Your task to perform on an android device: remove spam from my inbox in the gmail app Image 0: 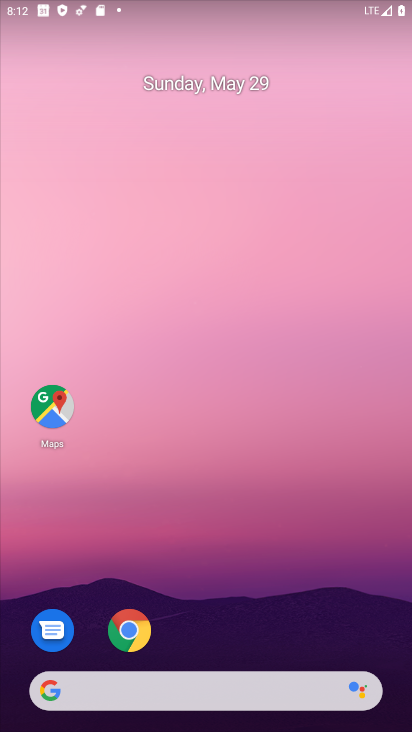
Step 0: drag from (202, 660) to (187, 16)
Your task to perform on an android device: remove spam from my inbox in the gmail app Image 1: 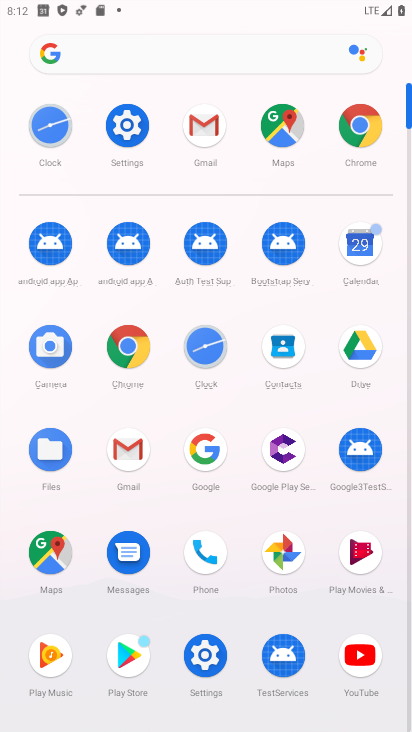
Step 1: click (136, 447)
Your task to perform on an android device: remove spam from my inbox in the gmail app Image 2: 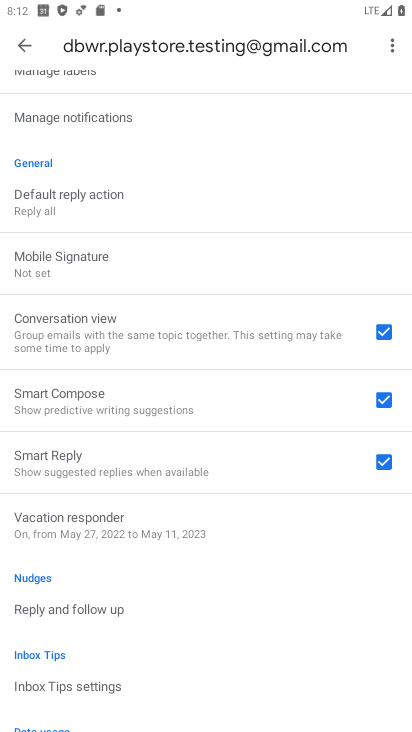
Step 2: click (38, 36)
Your task to perform on an android device: remove spam from my inbox in the gmail app Image 3: 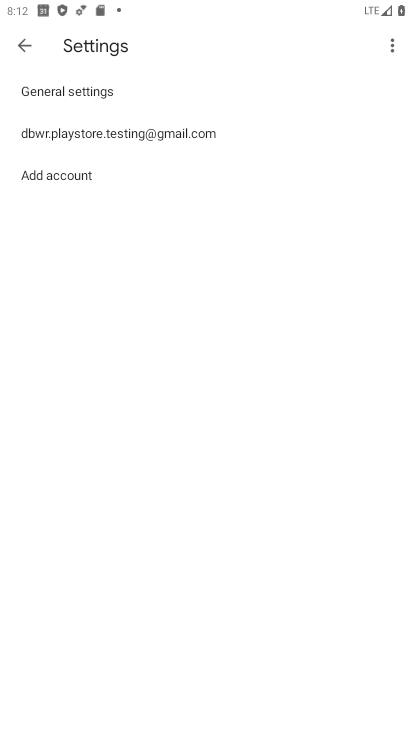
Step 3: click (38, 36)
Your task to perform on an android device: remove spam from my inbox in the gmail app Image 4: 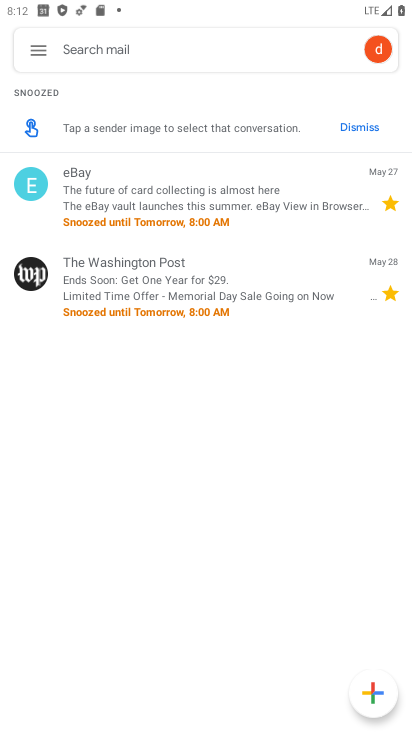
Step 4: click (38, 36)
Your task to perform on an android device: remove spam from my inbox in the gmail app Image 5: 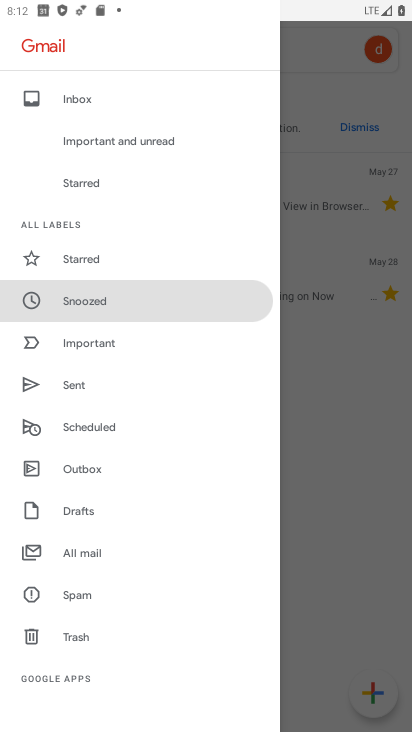
Step 5: click (56, 598)
Your task to perform on an android device: remove spam from my inbox in the gmail app Image 6: 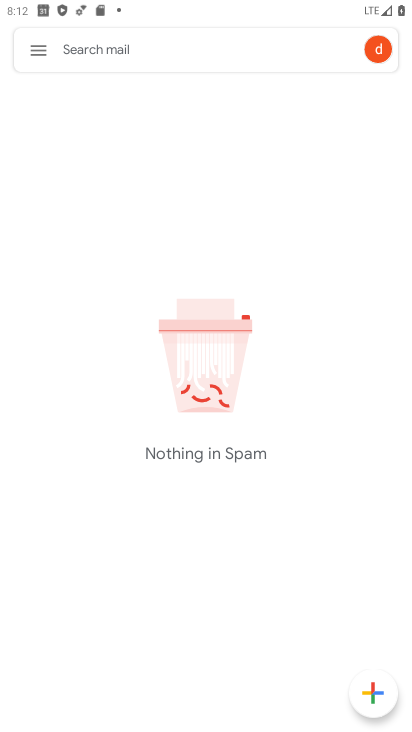
Step 6: task complete